Your task to perform on an android device: toggle sleep mode Image 0: 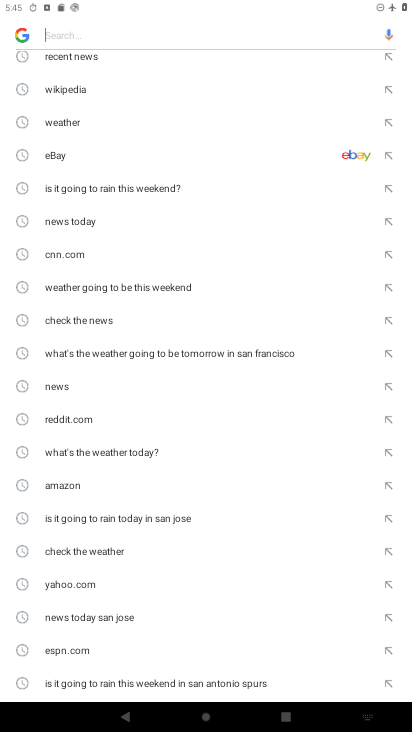
Step 0: press home button
Your task to perform on an android device: toggle sleep mode Image 1: 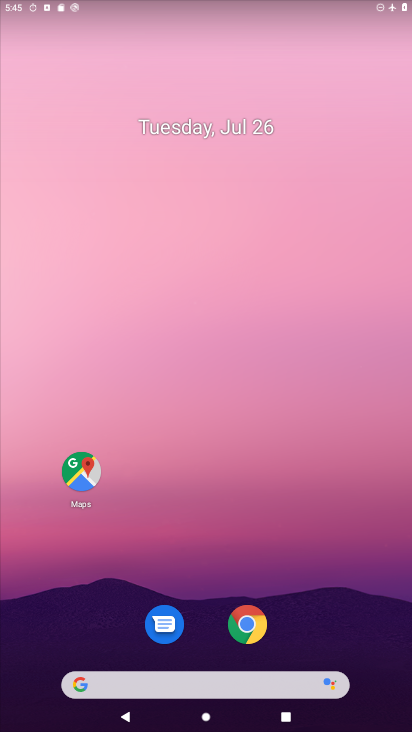
Step 1: drag from (251, 617) to (351, 5)
Your task to perform on an android device: toggle sleep mode Image 2: 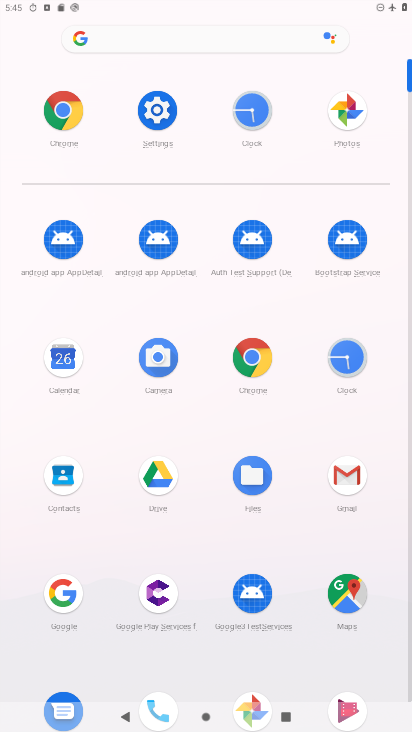
Step 2: click (148, 145)
Your task to perform on an android device: toggle sleep mode Image 3: 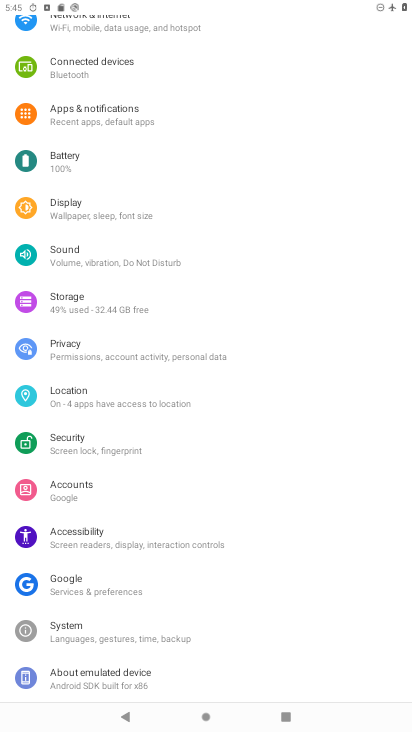
Step 3: click (130, 213)
Your task to perform on an android device: toggle sleep mode Image 4: 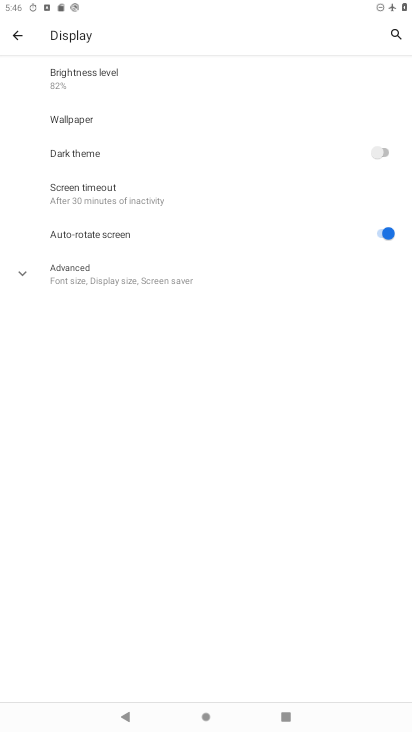
Step 4: task complete